Your task to perform on an android device: Turn on the flashlight Image 0: 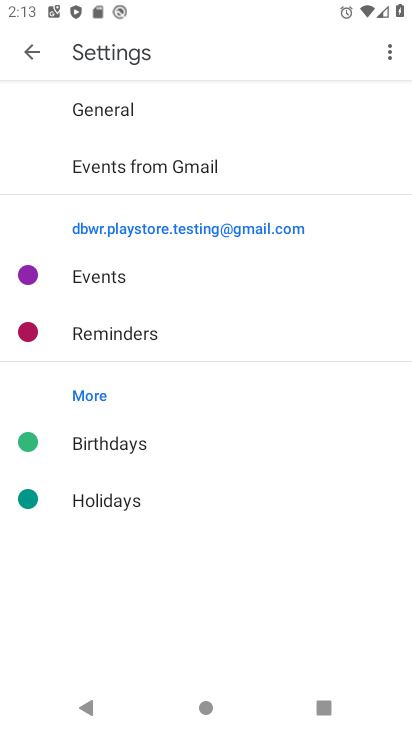
Step 0: press home button
Your task to perform on an android device: Turn on the flashlight Image 1: 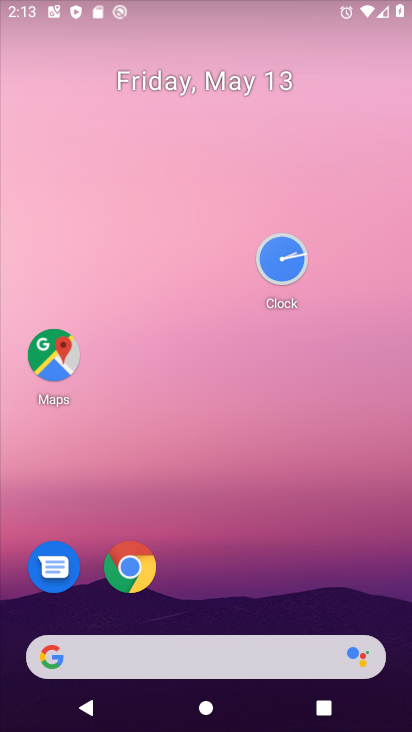
Step 1: drag from (265, 512) to (387, 13)
Your task to perform on an android device: Turn on the flashlight Image 2: 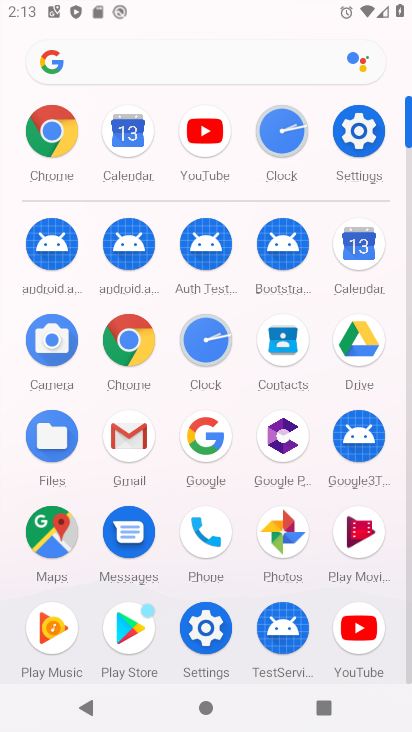
Step 2: click (369, 251)
Your task to perform on an android device: Turn on the flashlight Image 3: 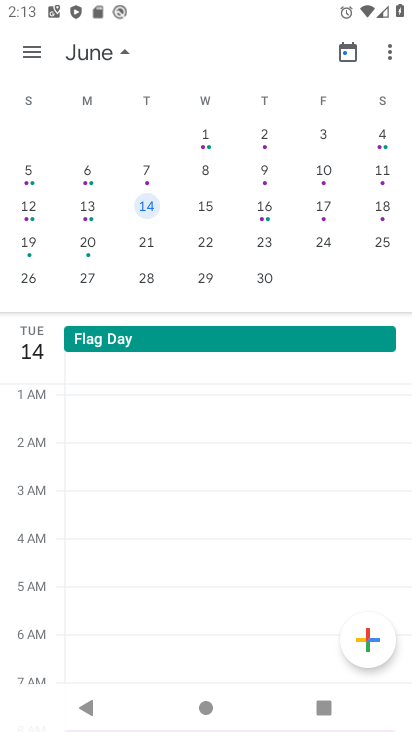
Step 3: press home button
Your task to perform on an android device: Turn on the flashlight Image 4: 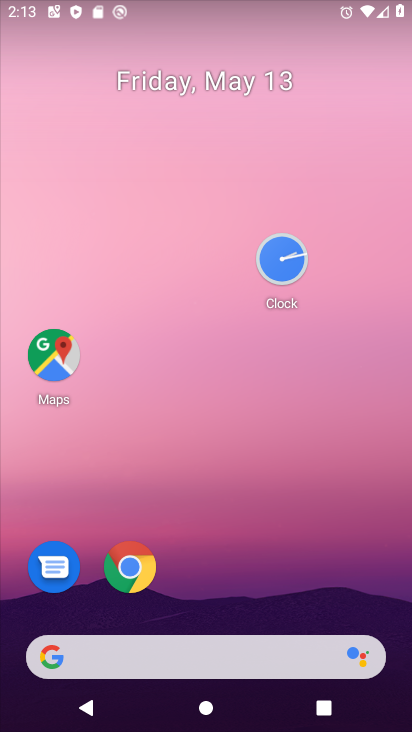
Step 4: drag from (283, 619) to (346, 13)
Your task to perform on an android device: Turn on the flashlight Image 5: 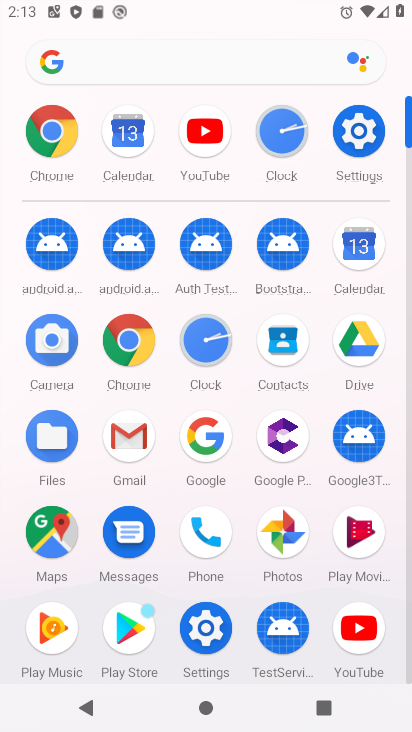
Step 5: click (349, 154)
Your task to perform on an android device: Turn on the flashlight Image 6: 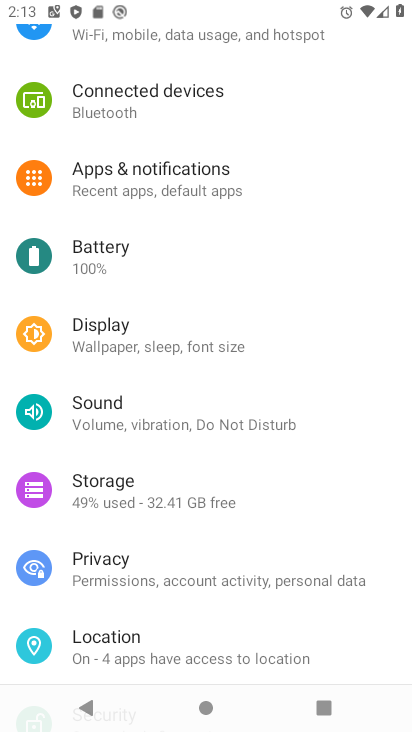
Step 6: click (129, 244)
Your task to perform on an android device: Turn on the flashlight Image 7: 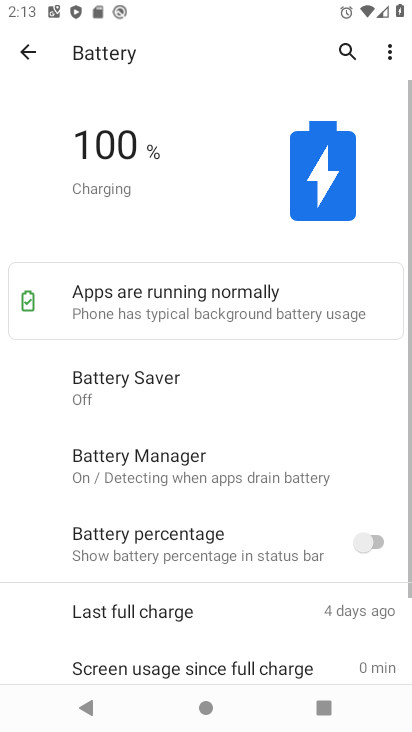
Step 7: task complete